Your task to perform on an android device: set the timer Image 0: 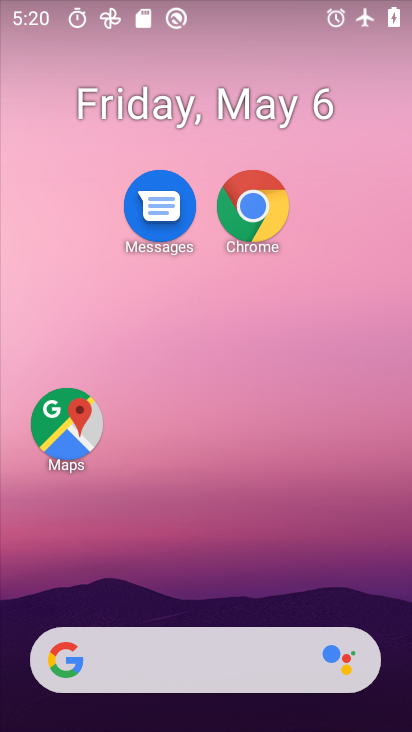
Step 0: drag from (192, 636) to (213, 310)
Your task to perform on an android device: set the timer Image 1: 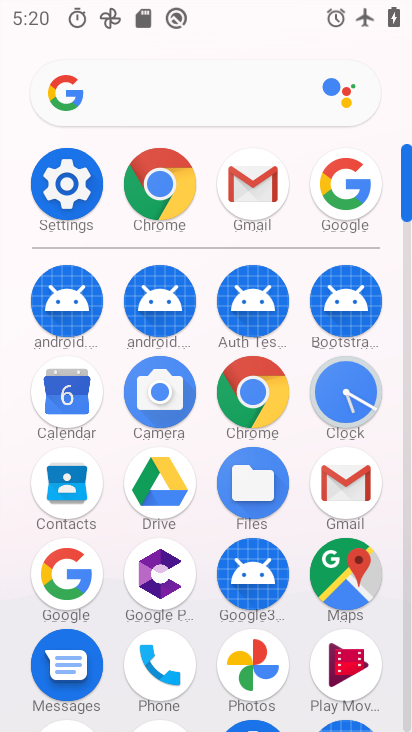
Step 1: click (343, 404)
Your task to perform on an android device: set the timer Image 2: 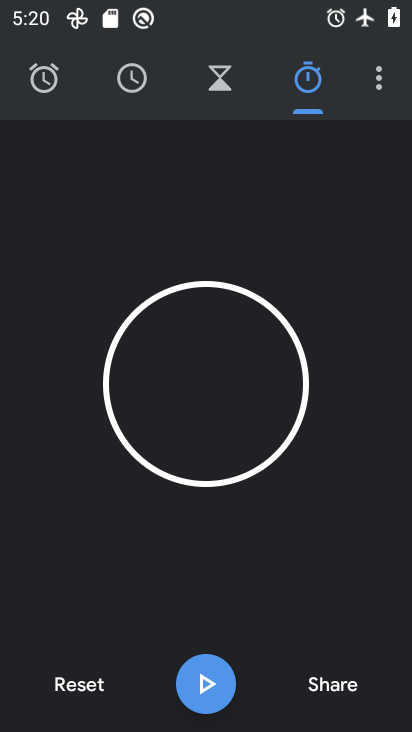
Step 2: click (222, 88)
Your task to perform on an android device: set the timer Image 3: 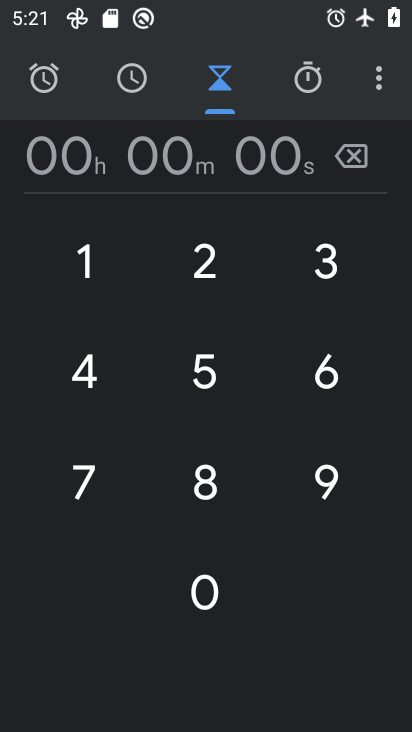
Step 3: click (204, 584)
Your task to perform on an android device: set the timer Image 4: 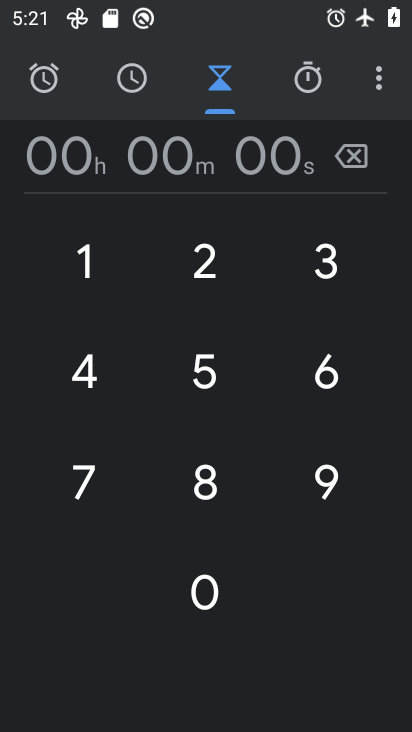
Step 4: click (214, 370)
Your task to perform on an android device: set the timer Image 5: 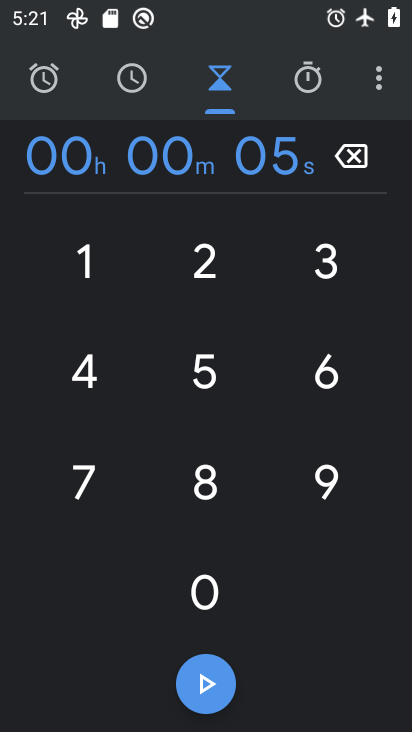
Step 5: click (205, 589)
Your task to perform on an android device: set the timer Image 6: 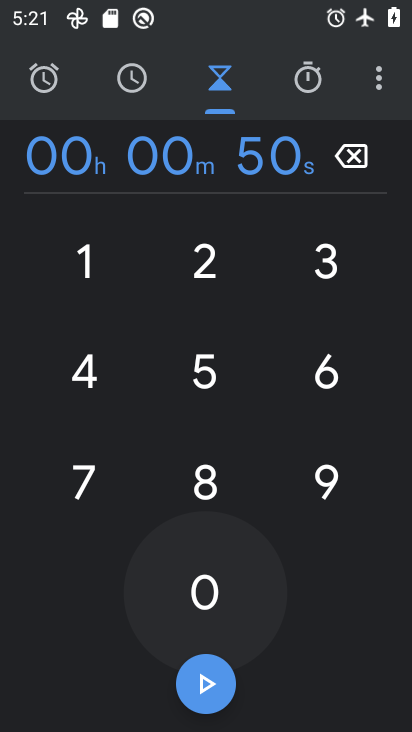
Step 6: click (211, 487)
Your task to perform on an android device: set the timer Image 7: 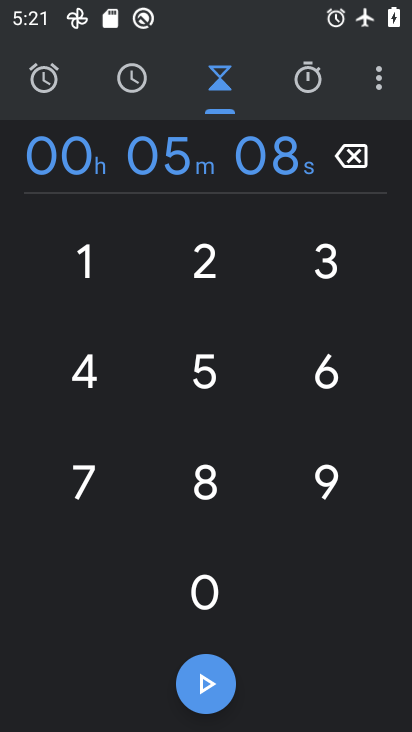
Step 7: click (211, 585)
Your task to perform on an android device: set the timer Image 8: 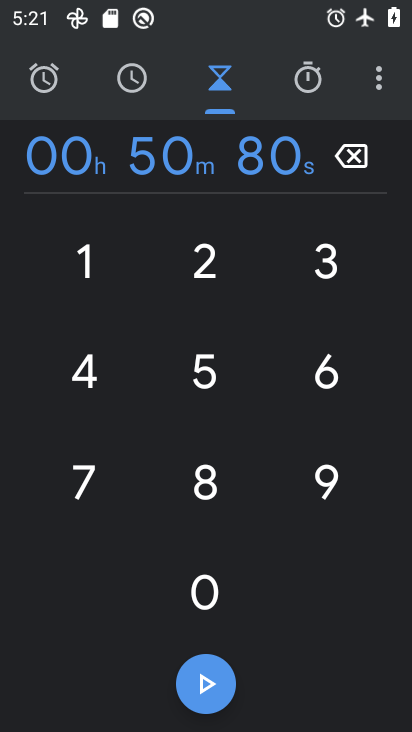
Step 8: click (189, 698)
Your task to perform on an android device: set the timer Image 9: 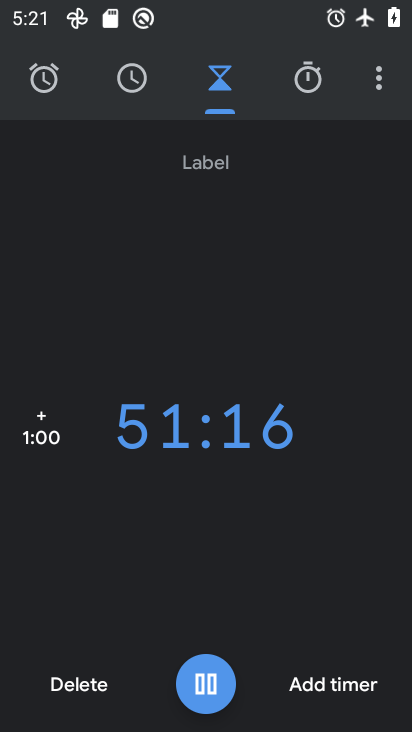
Step 9: task complete